Your task to perform on an android device: open app "Fetch Rewards" (install if not already installed) Image 0: 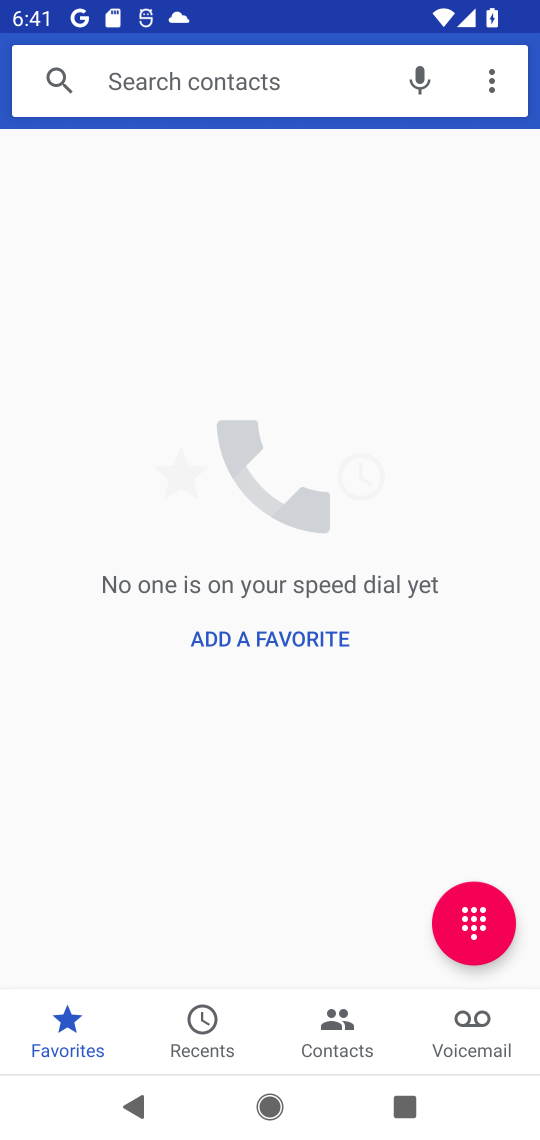
Step 0: press home button
Your task to perform on an android device: open app "Fetch Rewards" (install if not already installed) Image 1: 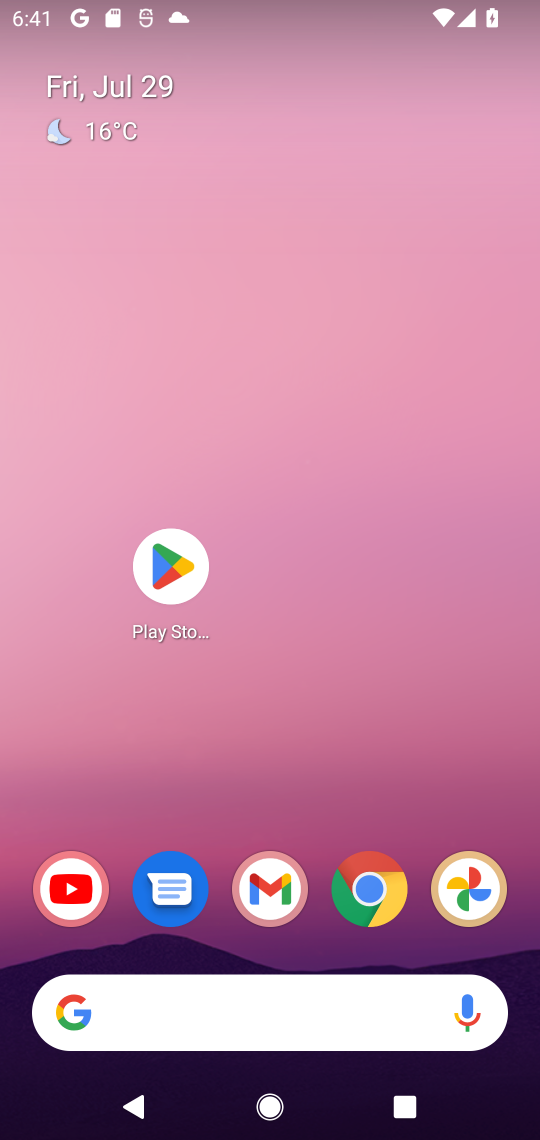
Step 1: click (174, 560)
Your task to perform on an android device: open app "Fetch Rewards" (install if not already installed) Image 2: 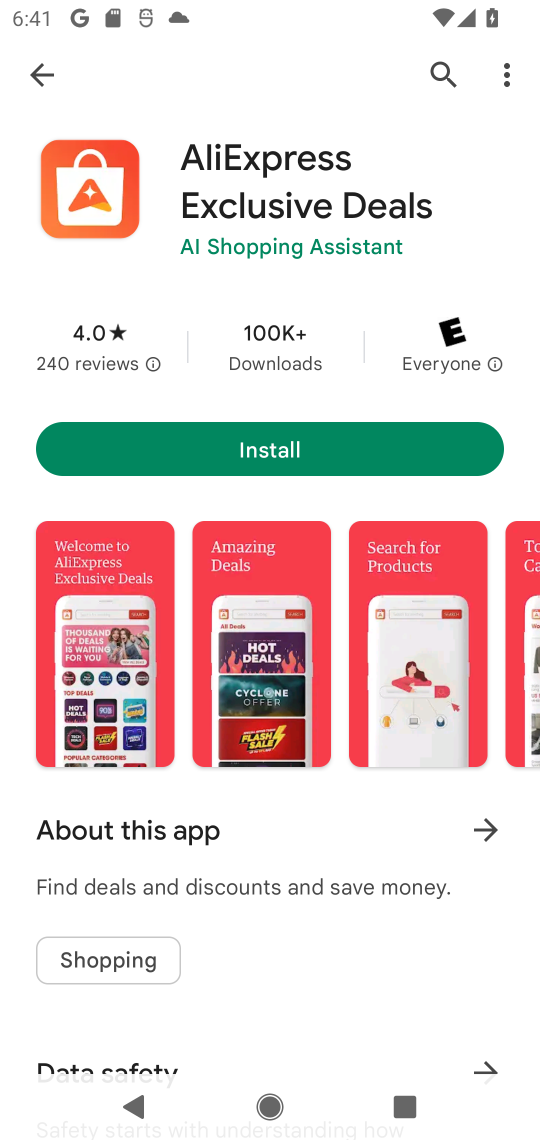
Step 2: click (443, 72)
Your task to perform on an android device: open app "Fetch Rewards" (install if not already installed) Image 3: 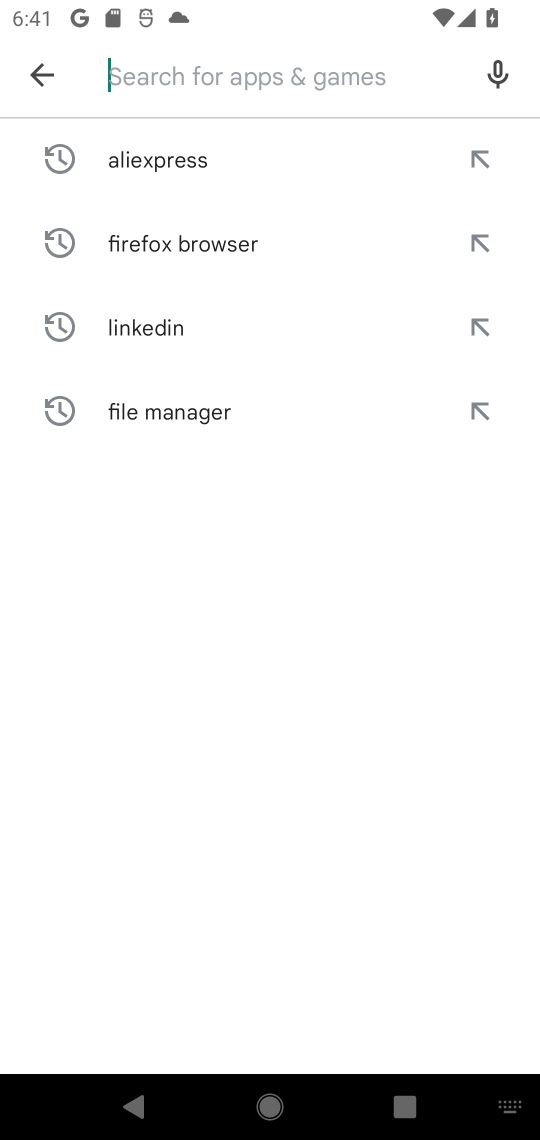
Step 3: type "Fetch Rewards"
Your task to perform on an android device: open app "Fetch Rewards" (install if not already installed) Image 4: 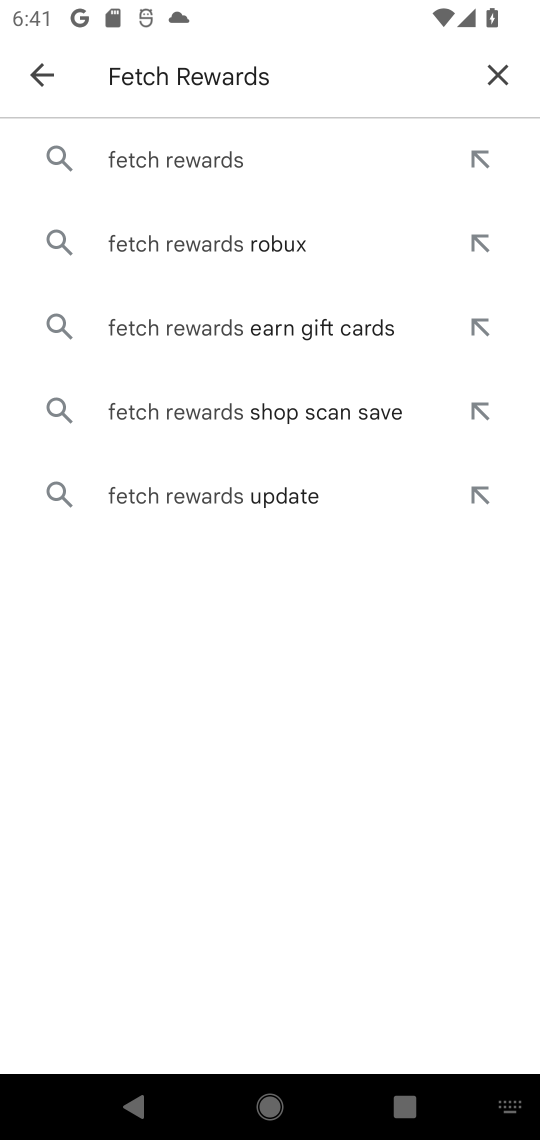
Step 4: click (237, 162)
Your task to perform on an android device: open app "Fetch Rewards" (install if not already installed) Image 5: 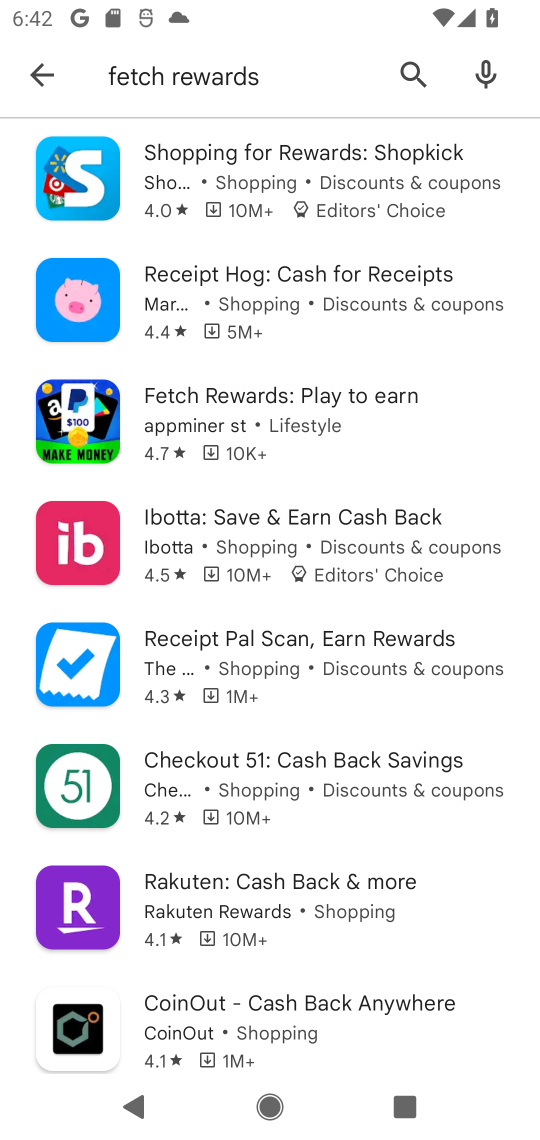
Step 5: click (237, 406)
Your task to perform on an android device: open app "Fetch Rewards" (install if not already installed) Image 6: 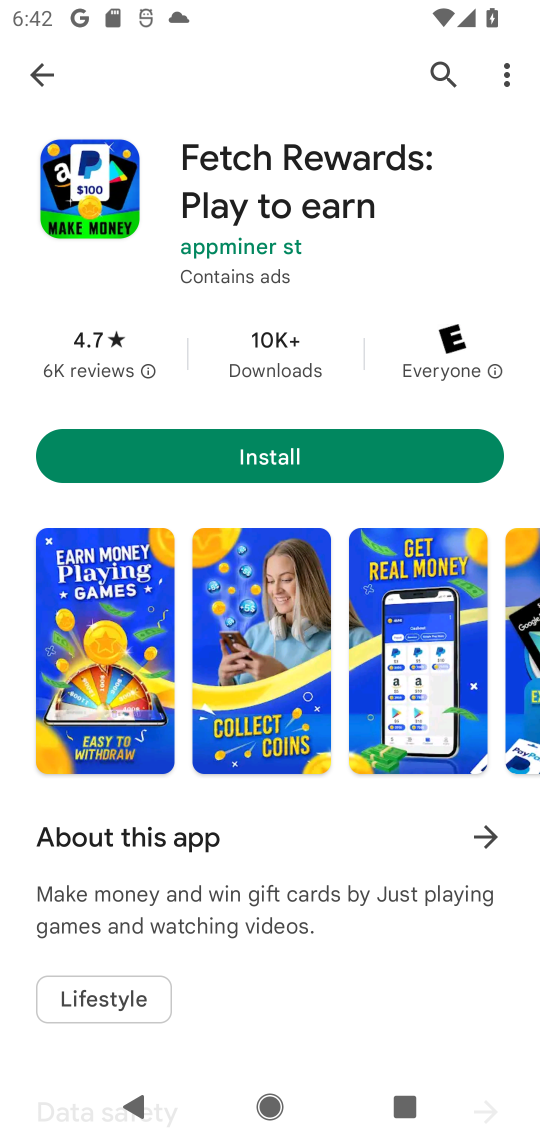
Step 6: click (261, 450)
Your task to perform on an android device: open app "Fetch Rewards" (install if not already installed) Image 7: 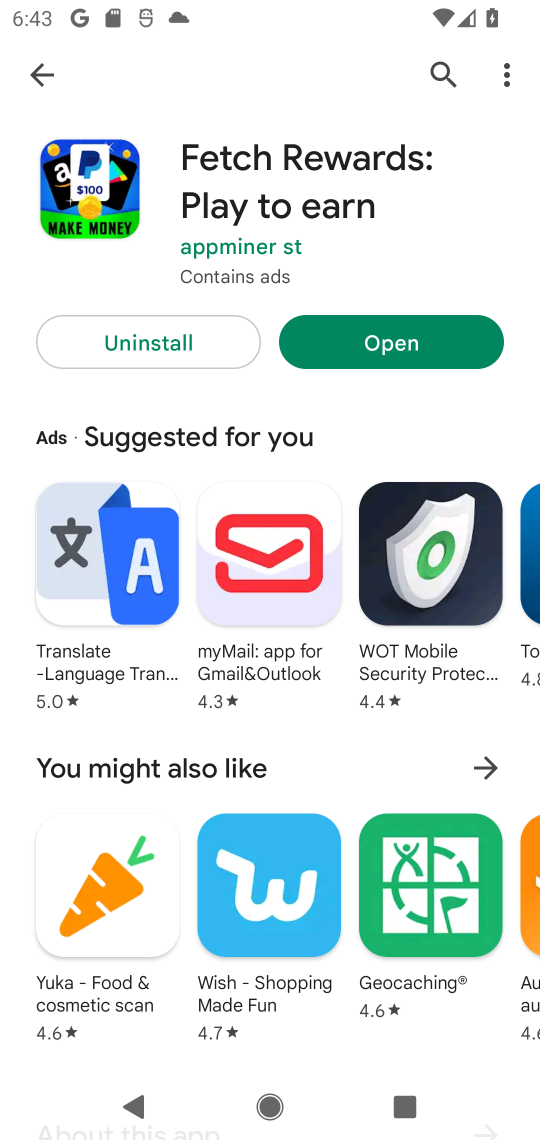
Step 7: click (451, 342)
Your task to perform on an android device: open app "Fetch Rewards" (install if not already installed) Image 8: 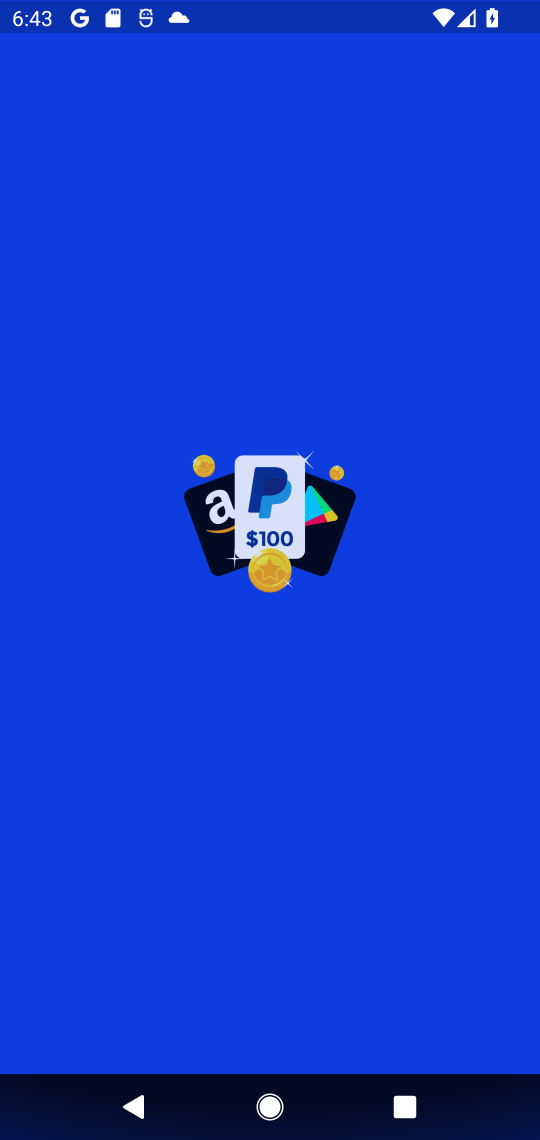
Step 8: task complete